Your task to perform on an android device: toggle javascript in the chrome app Image 0: 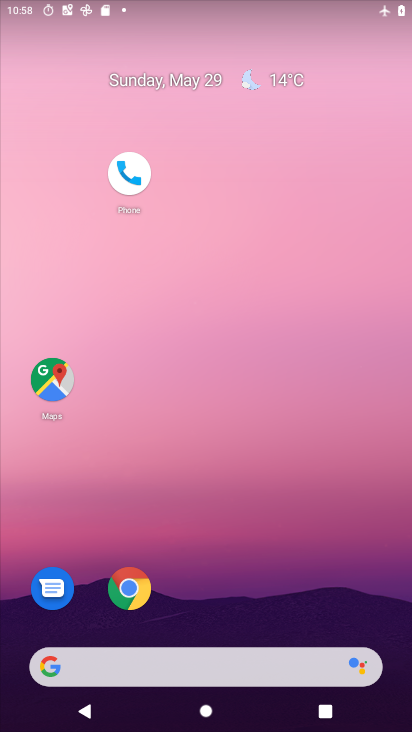
Step 0: click (377, 97)
Your task to perform on an android device: toggle javascript in the chrome app Image 1: 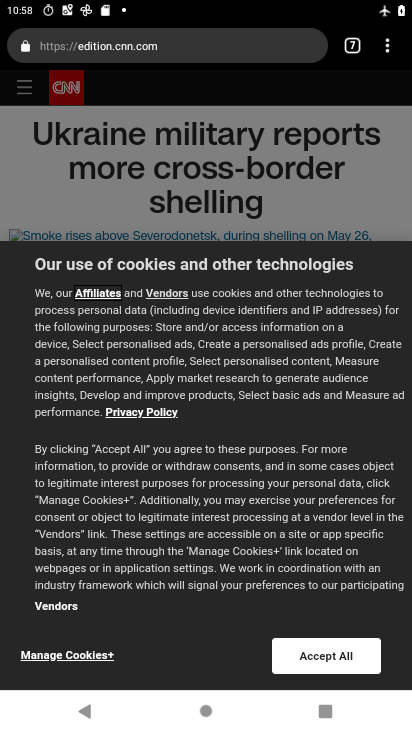
Step 1: drag from (298, 703) to (243, 10)
Your task to perform on an android device: toggle javascript in the chrome app Image 2: 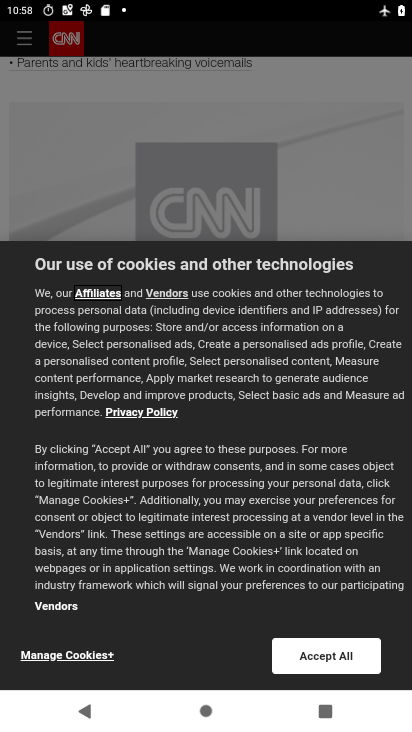
Step 2: click (315, 31)
Your task to perform on an android device: toggle javascript in the chrome app Image 3: 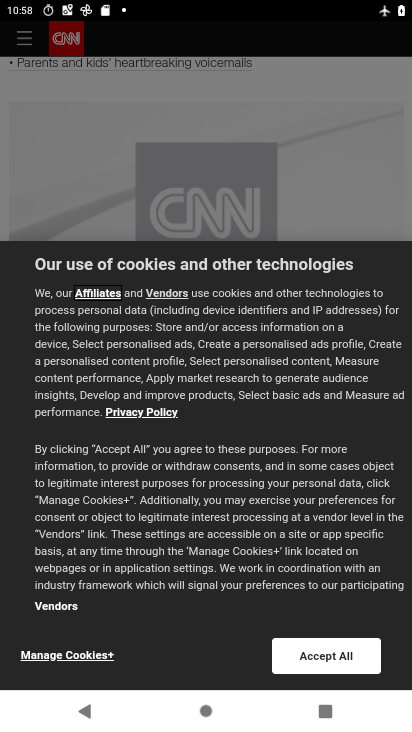
Step 3: click (317, 36)
Your task to perform on an android device: toggle javascript in the chrome app Image 4: 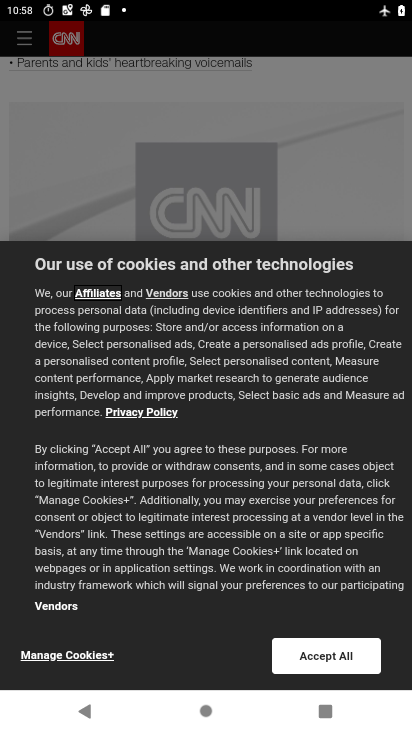
Step 4: click (316, 38)
Your task to perform on an android device: toggle javascript in the chrome app Image 5: 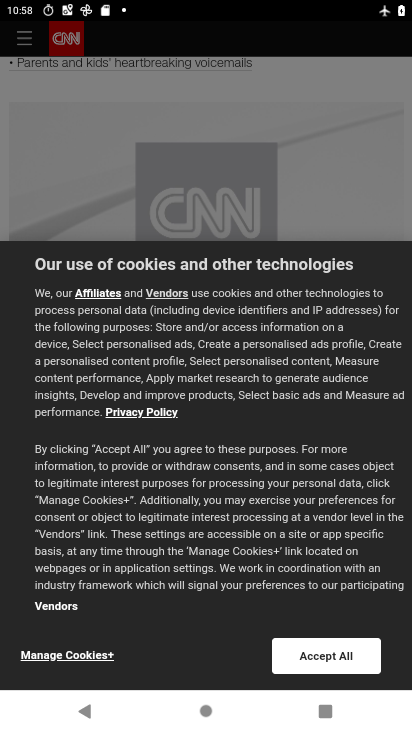
Step 5: click (308, 41)
Your task to perform on an android device: toggle javascript in the chrome app Image 6: 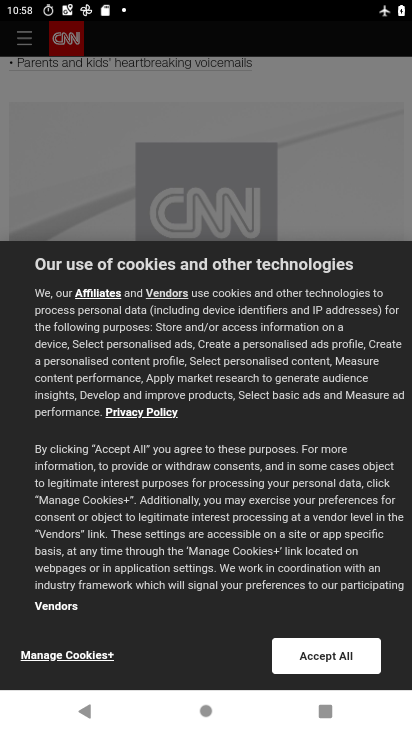
Step 6: press home button
Your task to perform on an android device: toggle javascript in the chrome app Image 7: 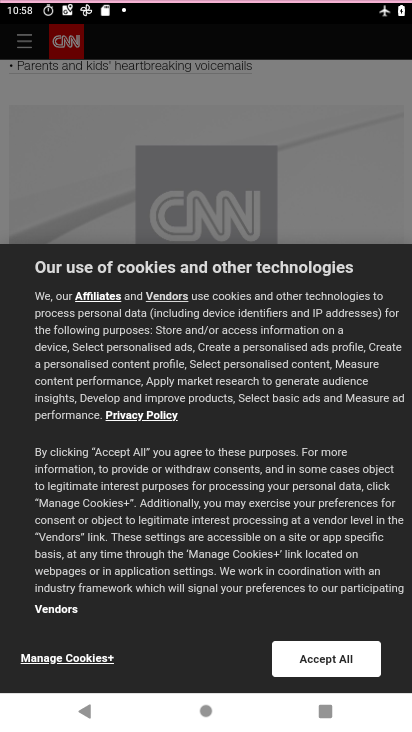
Step 7: press home button
Your task to perform on an android device: toggle javascript in the chrome app Image 8: 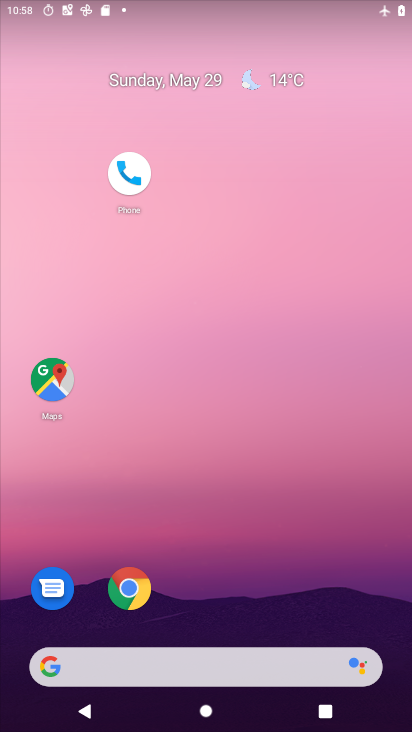
Step 8: drag from (246, 687) to (144, 97)
Your task to perform on an android device: toggle javascript in the chrome app Image 9: 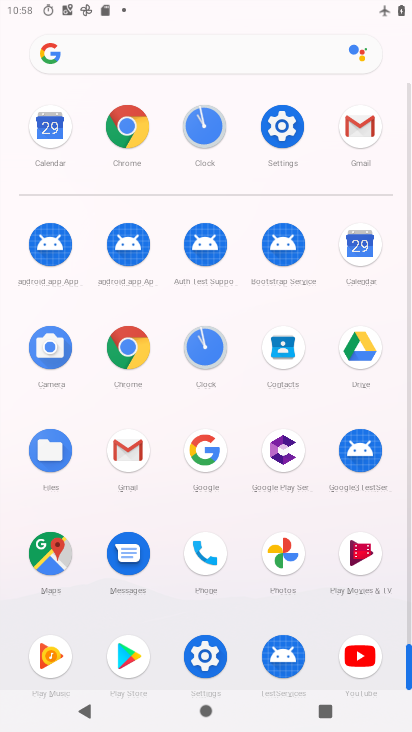
Step 9: click (282, 127)
Your task to perform on an android device: toggle javascript in the chrome app Image 10: 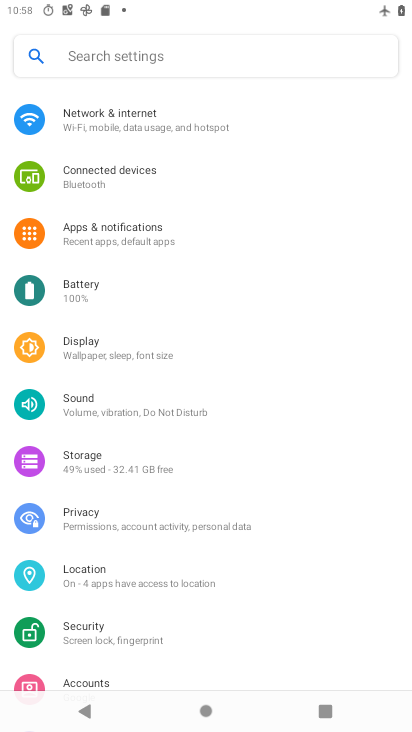
Step 10: click (129, 125)
Your task to perform on an android device: toggle javascript in the chrome app Image 11: 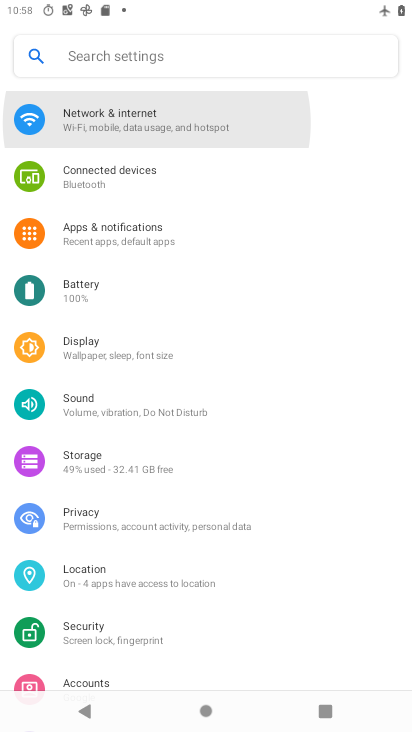
Step 11: click (129, 124)
Your task to perform on an android device: toggle javascript in the chrome app Image 12: 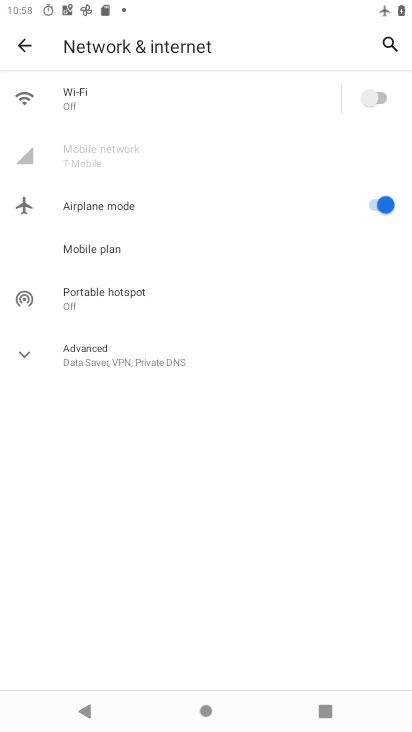
Step 12: click (375, 98)
Your task to perform on an android device: toggle javascript in the chrome app Image 13: 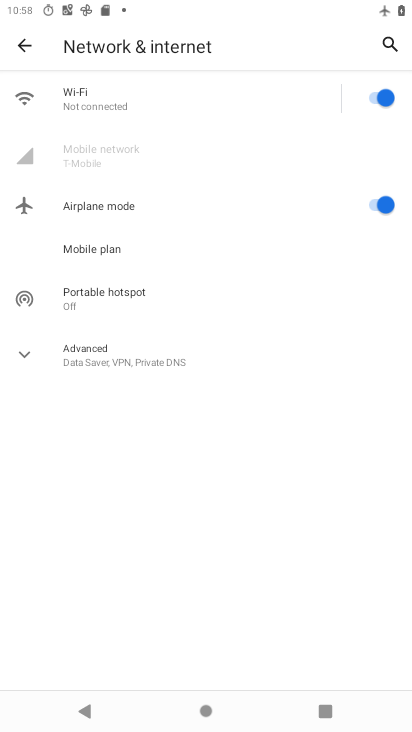
Step 13: click (384, 199)
Your task to perform on an android device: toggle javascript in the chrome app Image 14: 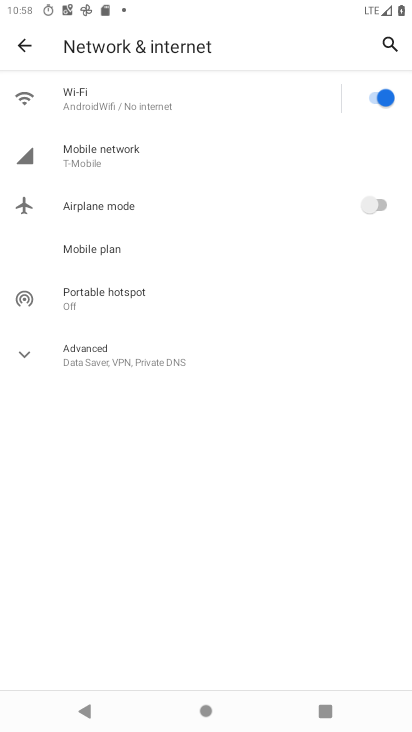
Step 14: press back button
Your task to perform on an android device: toggle javascript in the chrome app Image 15: 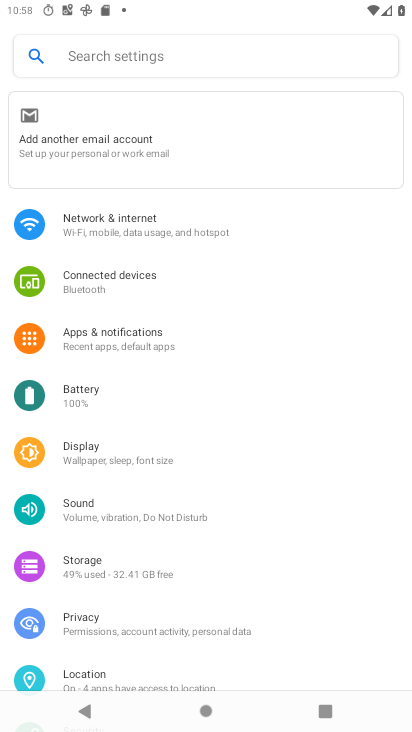
Step 15: drag from (133, 559) to (139, 510)
Your task to perform on an android device: toggle javascript in the chrome app Image 16: 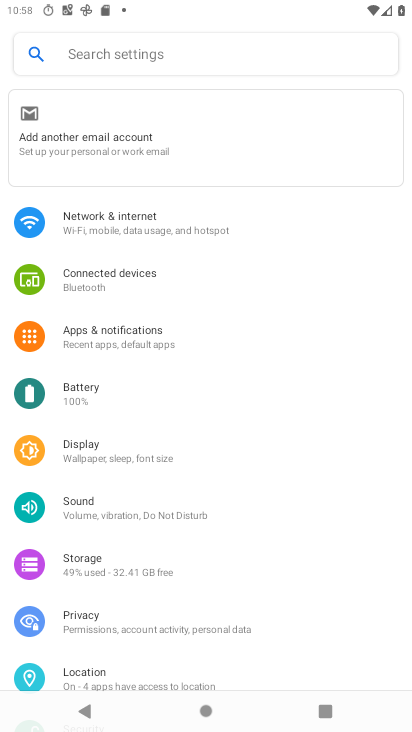
Step 16: press home button
Your task to perform on an android device: toggle javascript in the chrome app Image 17: 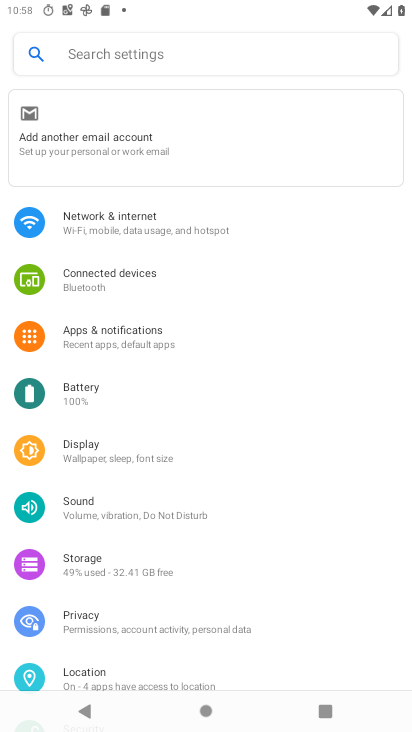
Step 17: press home button
Your task to perform on an android device: toggle javascript in the chrome app Image 18: 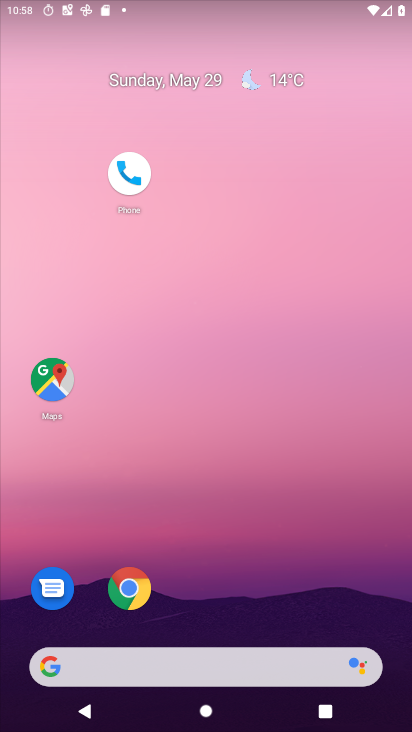
Step 18: press home button
Your task to perform on an android device: toggle javascript in the chrome app Image 19: 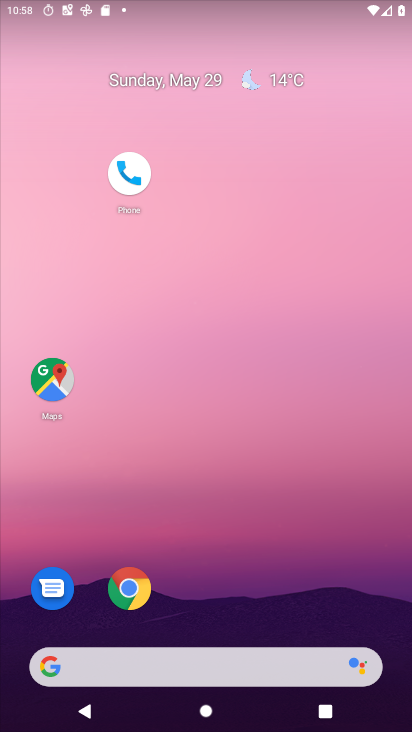
Step 19: drag from (249, 698) to (219, 80)
Your task to perform on an android device: toggle javascript in the chrome app Image 20: 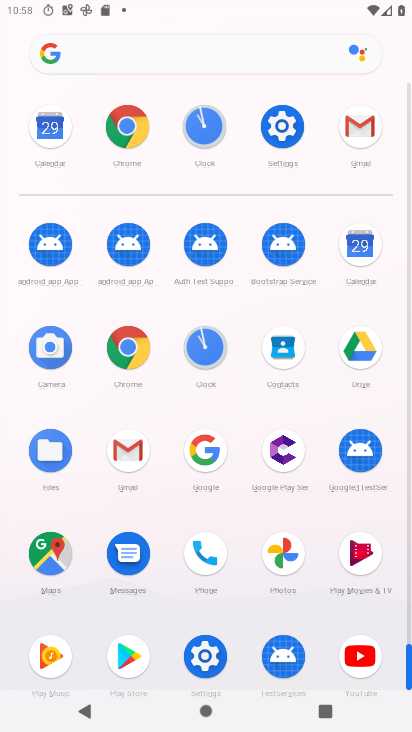
Step 20: click (134, 129)
Your task to perform on an android device: toggle javascript in the chrome app Image 21: 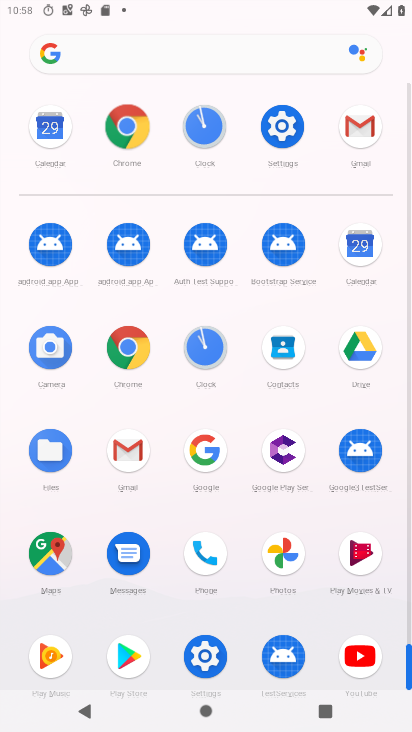
Step 21: click (134, 129)
Your task to perform on an android device: toggle javascript in the chrome app Image 22: 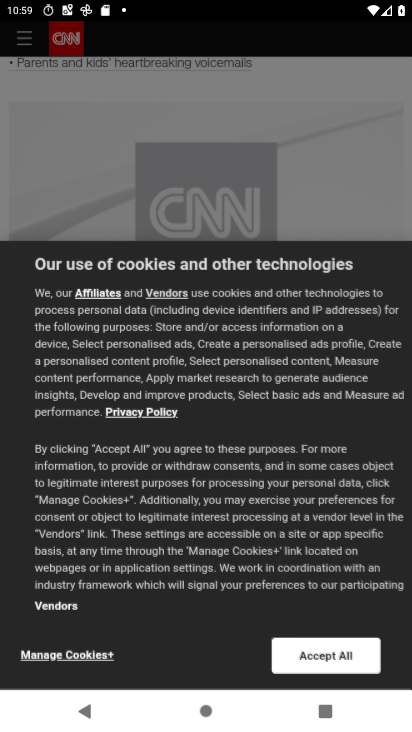
Step 22: click (134, 129)
Your task to perform on an android device: toggle javascript in the chrome app Image 23: 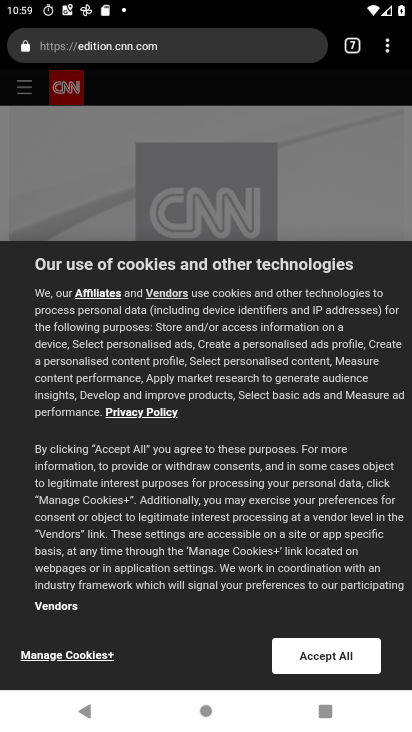
Step 23: drag from (393, 46) to (214, 541)
Your task to perform on an android device: toggle javascript in the chrome app Image 24: 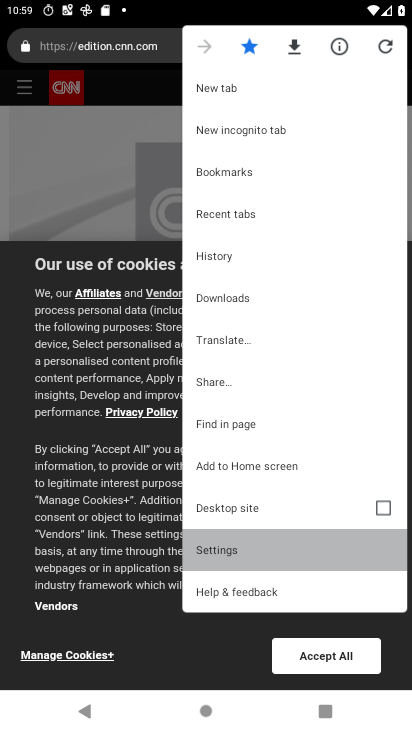
Step 24: click (216, 538)
Your task to perform on an android device: toggle javascript in the chrome app Image 25: 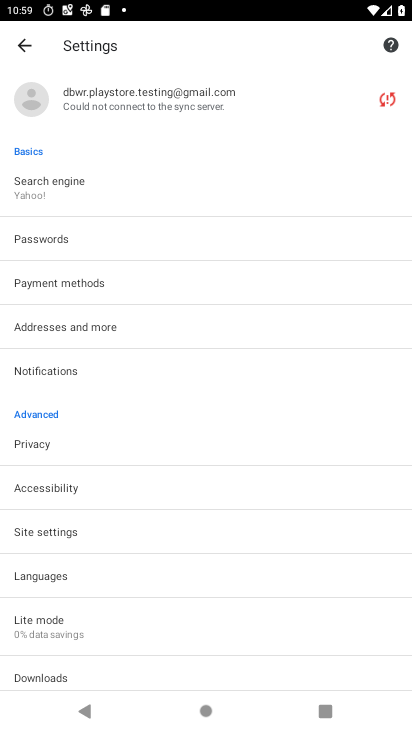
Step 25: click (33, 524)
Your task to perform on an android device: toggle javascript in the chrome app Image 26: 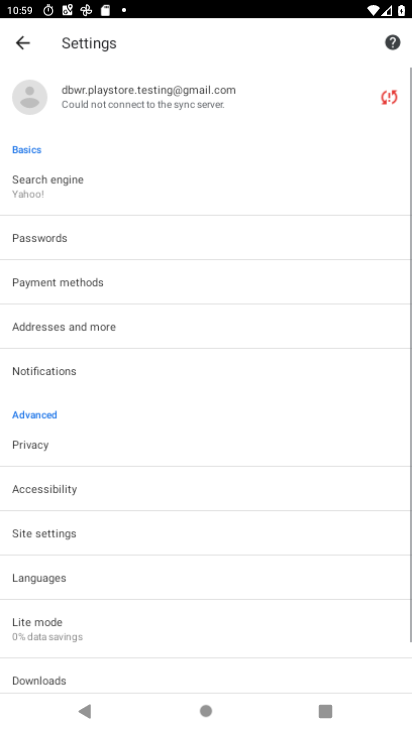
Step 26: click (37, 529)
Your task to perform on an android device: toggle javascript in the chrome app Image 27: 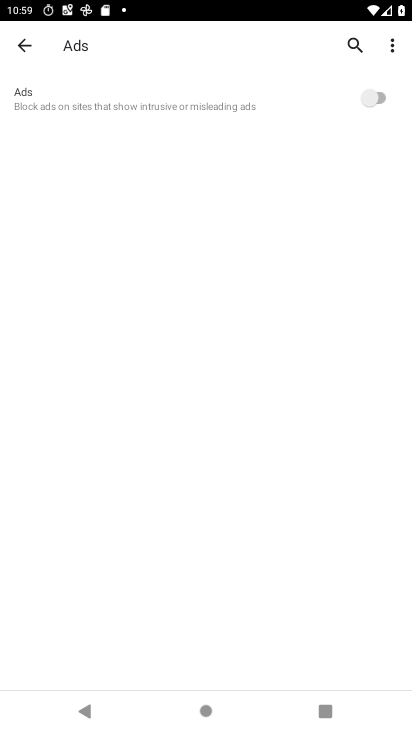
Step 27: click (21, 40)
Your task to perform on an android device: toggle javascript in the chrome app Image 28: 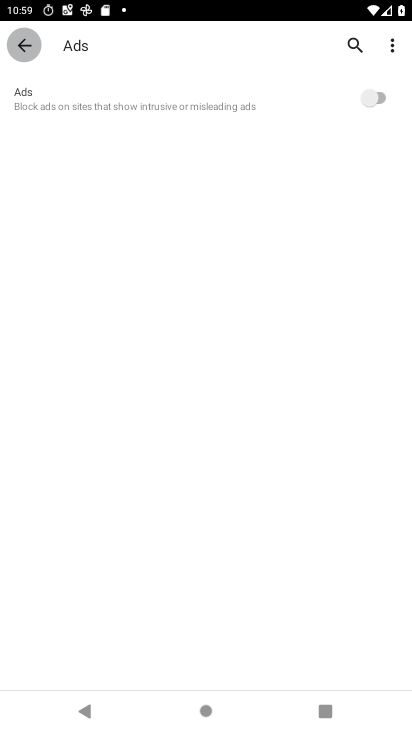
Step 28: click (17, 54)
Your task to perform on an android device: toggle javascript in the chrome app Image 29: 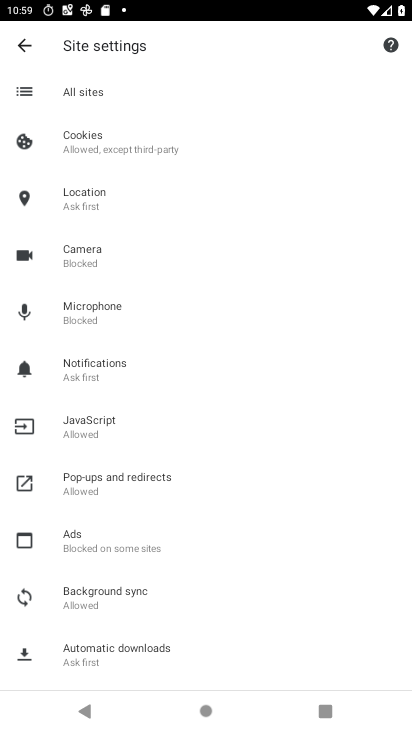
Step 29: click (91, 419)
Your task to perform on an android device: toggle javascript in the chrome app Image 30: 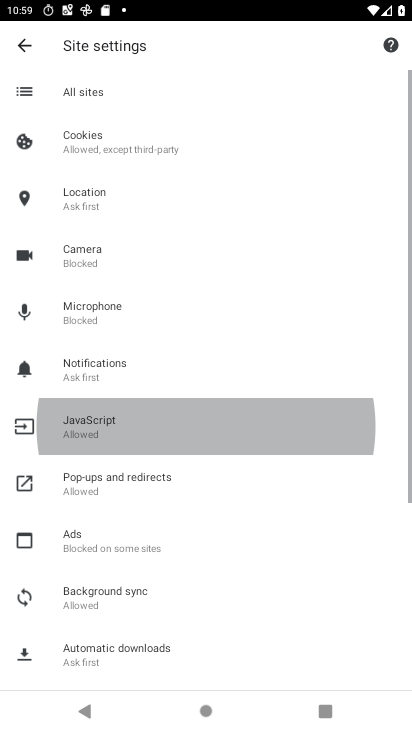
Step 30: click (92, 417)
Your task to perform on an android device: toggle javascript in the chrome app Image 31: 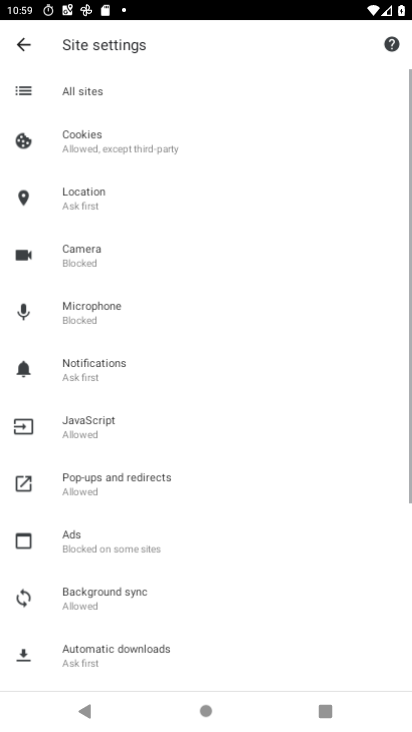
Step 31: click (102, 422)
Your task to perform on an android device: toggle javascript in the chrome app Image 32: 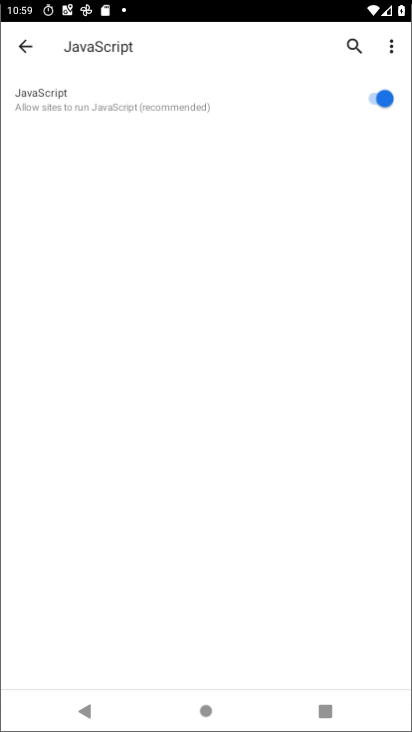
Step 32: click (103, 421)
Your task to perform on an android device: toggle javascript in the chrome app Image 33: 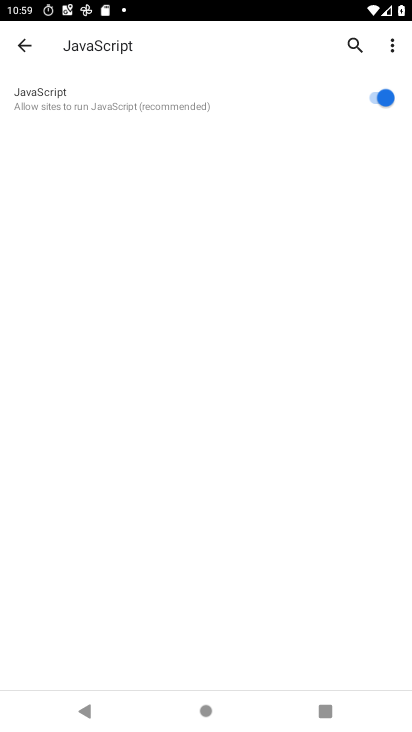
Step 33: click (103, 421)
Your task to perform on an android device: toggle javascript in the chrome app Image 34: 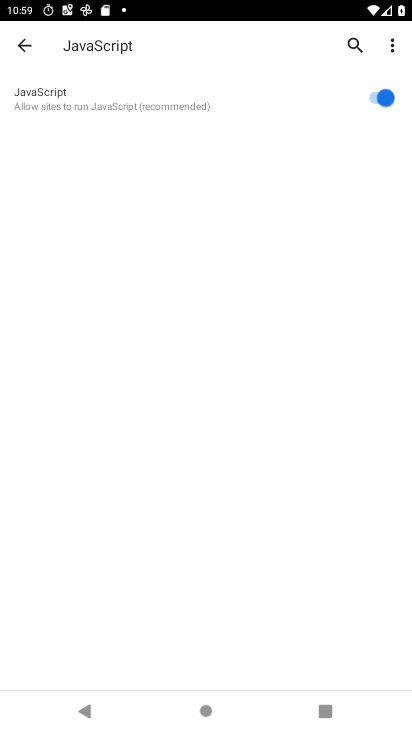
Step 34: click (381, 101)
Your task to perform on an android device: toggle javascript in the chrome app Image 35: 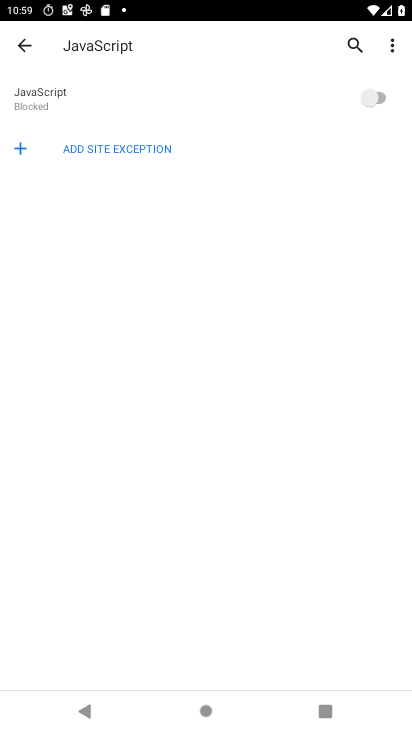
Step 35: task complete